Your task to perform on an android device: toggle notifications settings in the gmail app Image 0: 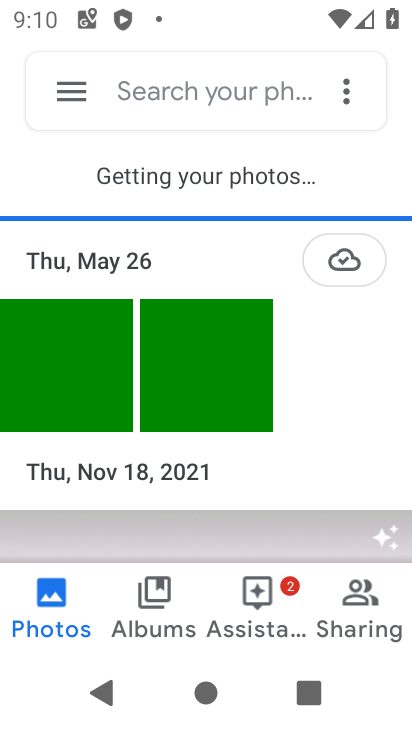
Step 0: press home button
Your task to perform on an android device: toggle notifications settings in the gmail app Image 1: 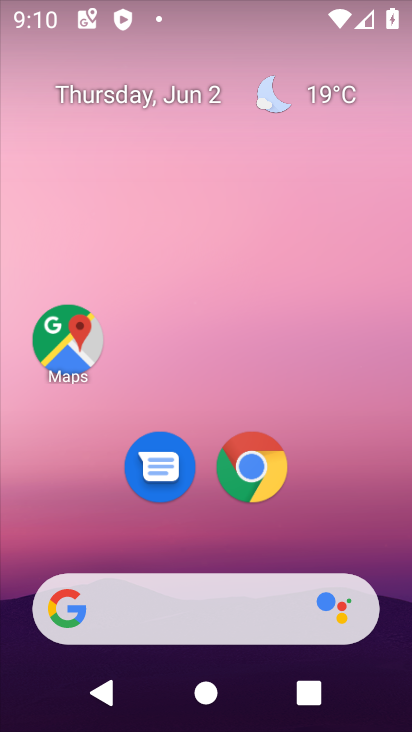
Step 1: drag from (212, 548) to (213, 203)
Your task to perform on an android device: toggle notifications settings in the gmail app Image 2: 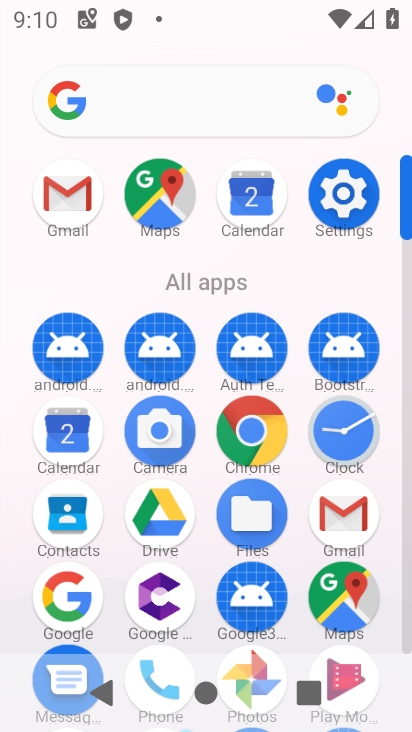
Step 2: click (67, 194)
Your task to perform on an android device: toggle notifications settings in the gmail app Image 3: 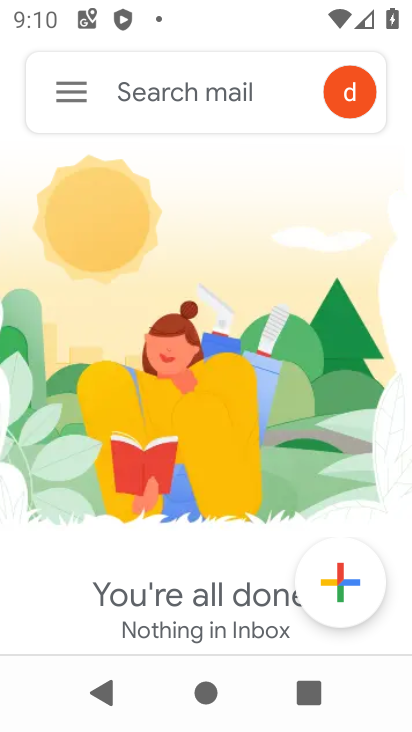
Step 3: click (68, 108)
Your task to perform on an android device: toggle notifications settings in the gmail app Image 4: 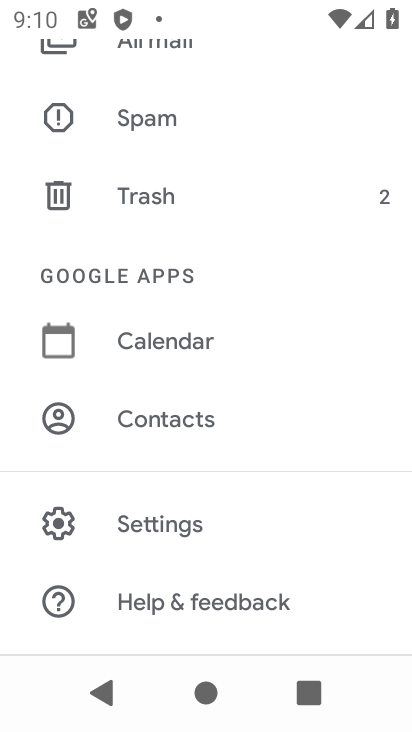
Step 4: click (166, 520)
Your task to perform on an android device: toggle notifications settings in the gmail app Image 5: 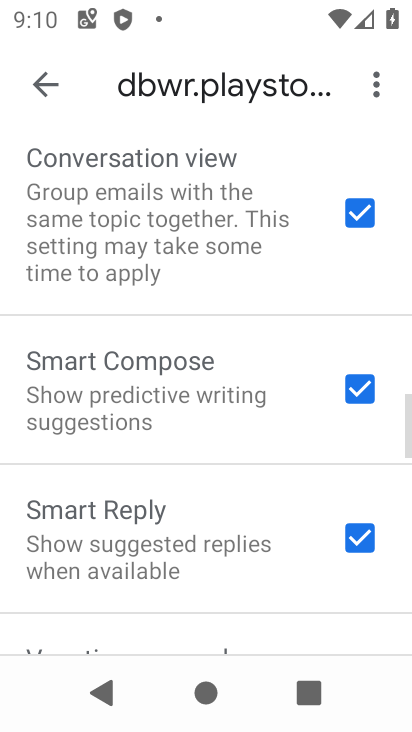
Step 5: drag from (172, 275) to (183, 619)
Your task to perform on an android device: toggle notifications settings in the gmail app Image 6: 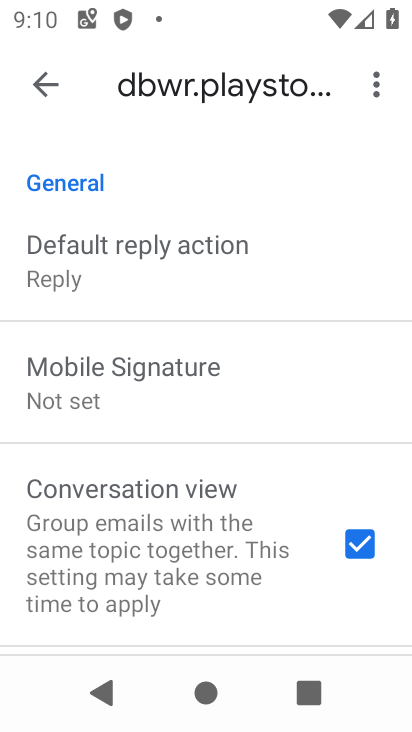
Step 6: drag from (201, 336) to (189, 592)
Your task to perform on an android device: toggle notifications settings in the gmail app Image 7: 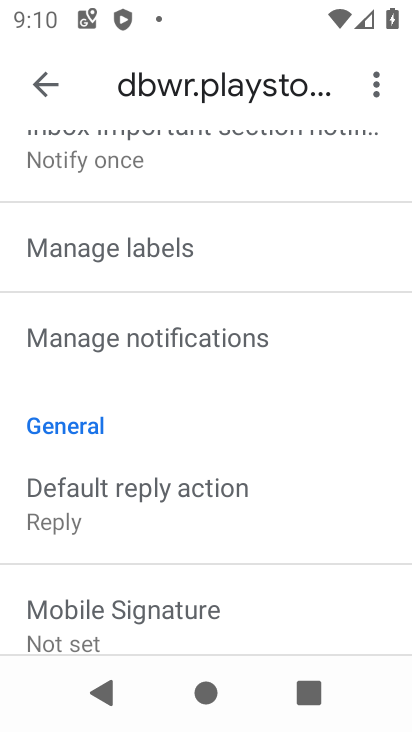
Step 7: drag from (190, 318) to (174, 586)
Your task to perform on an android device: toggle notifications settings in the gmail app Image 8: 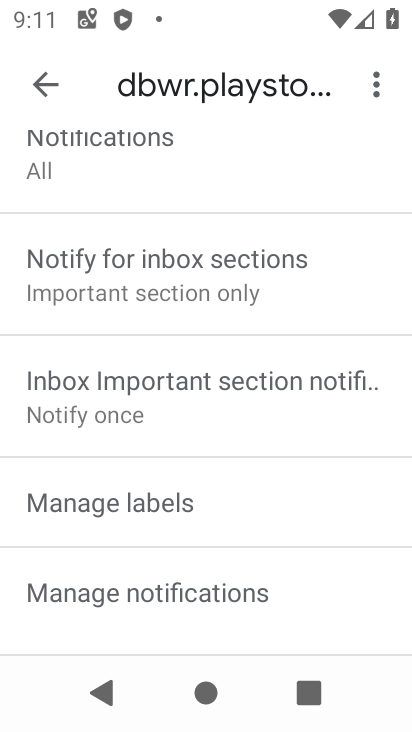
Step 8: click (179, 591)
Your task to perform on an android device: toggle notifications settings in the gmail app Image 9: 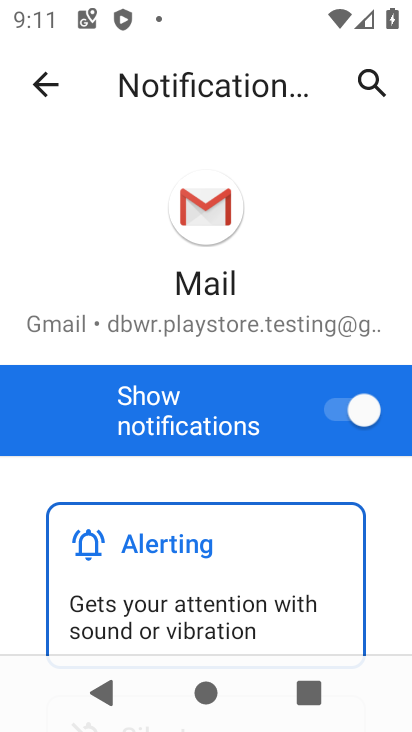
Step 9: click (332, 423)
Your task to perform on an android device: toggle notifications settings in the gmail app Image 10: 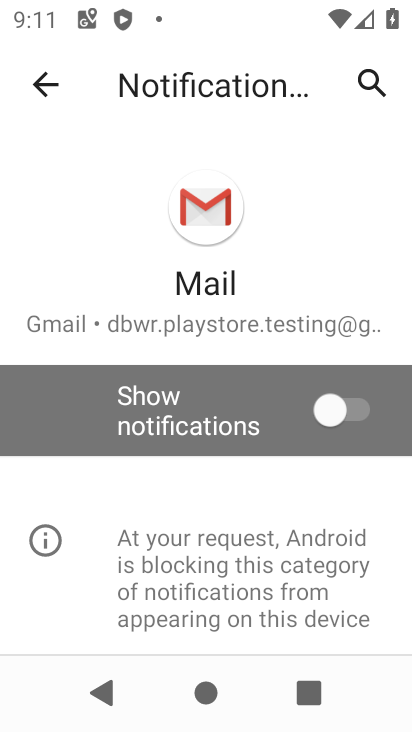
Step 10: task complete